Your task to perform on an android device: Search for Mexican restaurants on Maps Image 0: 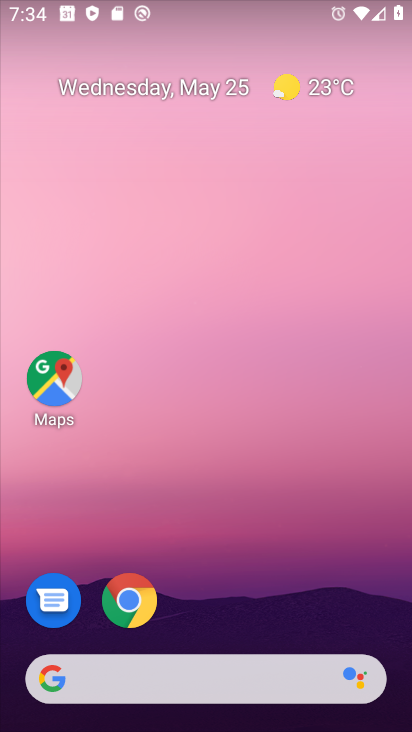
Step 0: click (54, 378)
Your task to perform on an android device: Search for Mexican restaurants on Maps Image 1: 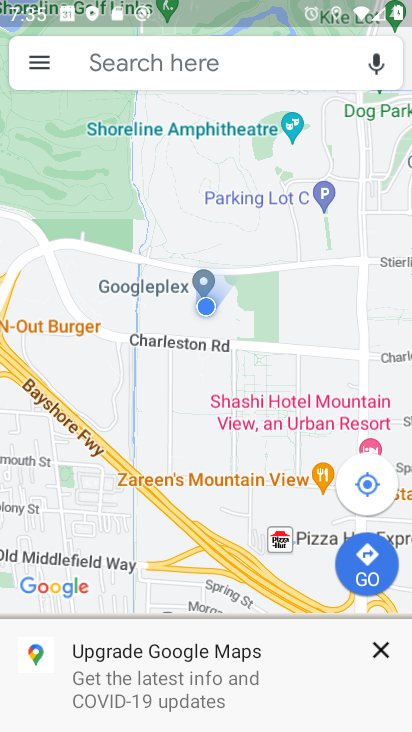
Step 1: click (152, 61)
Your task to perform on an android device: Search for Mexican restaurants on Maps Image 2: 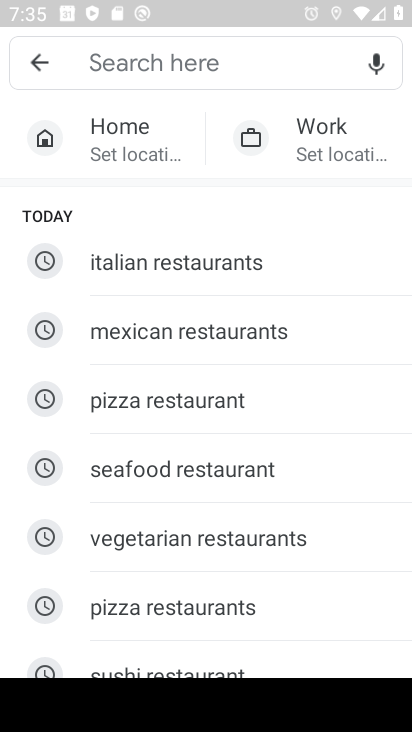
Step 2: type "Mexican restaurants"
Your task to perform on an android device: Search for Mexican restaurants on Maps Image 3: 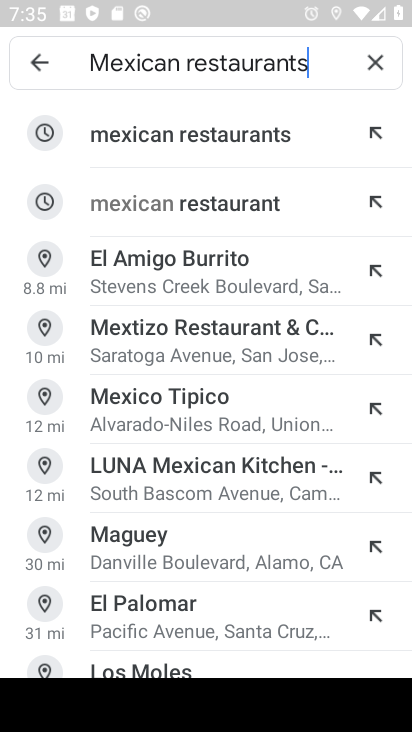
Step 3: click (199, 138)
Your task to perform on an android device: Search for Mexican restaurants on Maps Image 4: 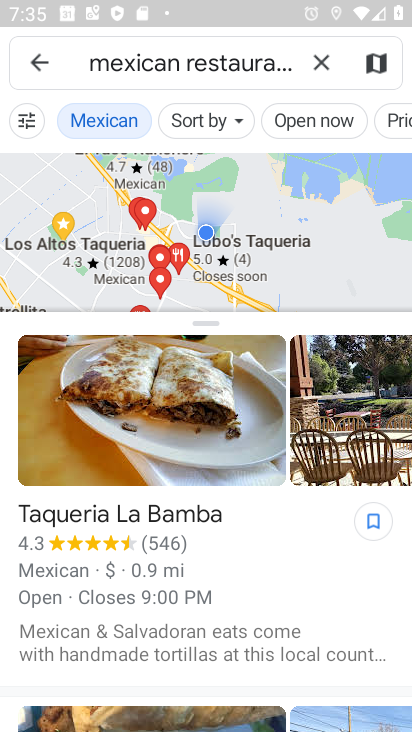
Step 4: task complete